Your task to perform on an android device: Search for Mexican restaurants on Maps Image 0: 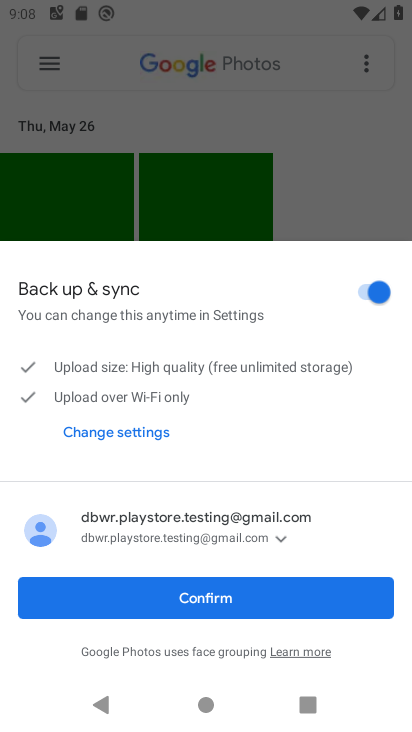
Step 0: click (149, 595)
Your task to perform on an android device: Search for Mexican restaurants on Maps Image 1: 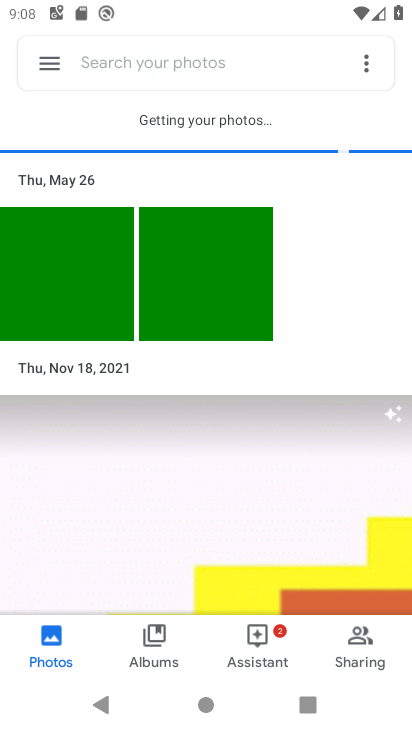
Step 1: press home button
Your task to perform on an android device: Search for Mexican restaurants on Maps Image 2: 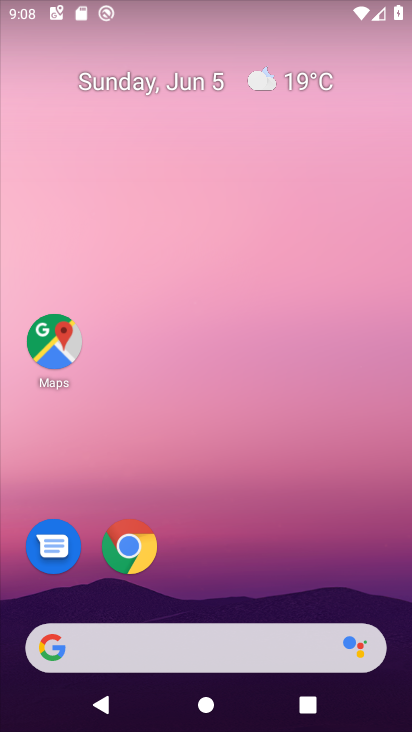
Step 2: click (61, 338)
Your task to perform on an android device: Search for Mexican restaurants on Maps Image 3: 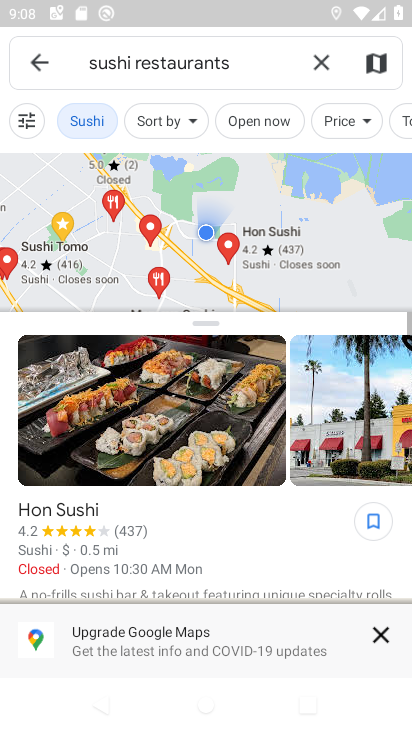
Step 3: click (317, 52)
Your task to perform on an android device: Search for Mexican restaurants on Maps Image 4: 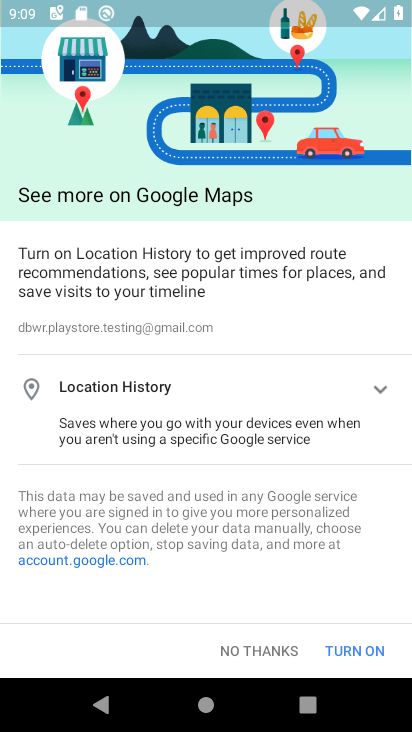
Step 4: click (238, 636)
Your task to perform on an android device: Search for Mexican restaurants on Maps Image 5: 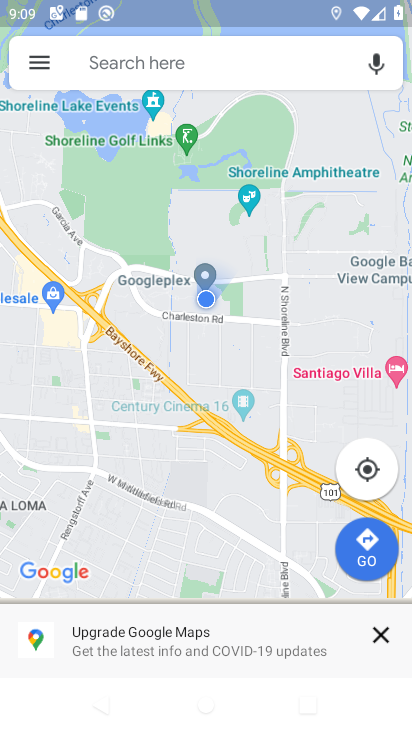
Step 5: click (131, 65)
Your task to perform on an android device: Search for Mexican restaurants on Maps Image 6: 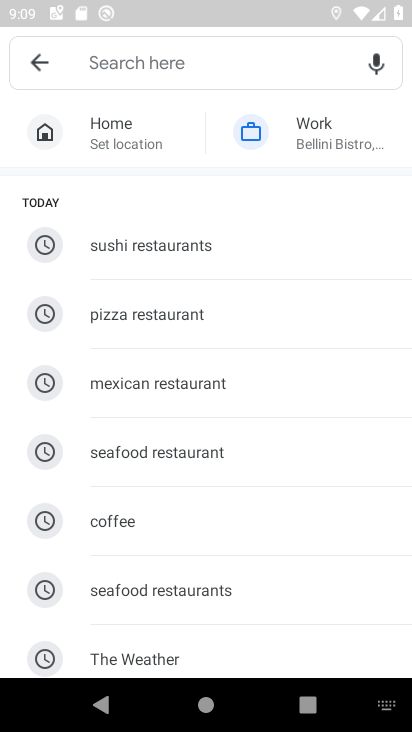
Step 6: type " Mexican restaurants"
Your task to perform on an android device: Search for Mexican restaurants on Maps Image 7: 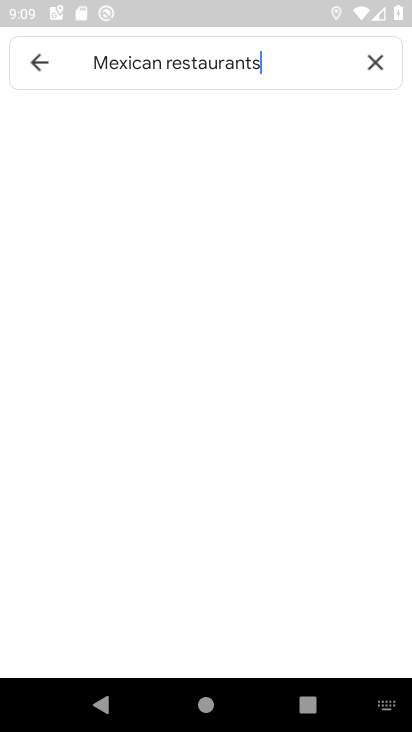
Step 7: type ""
Your task to perform on an android device: Search for Mexican restaurants on Maps Image 8: 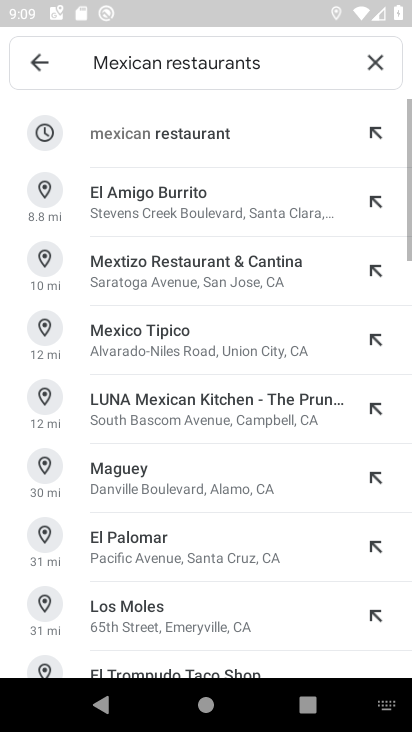
Step 8: click (166, 137)
Your task to perform on an android device: Search for Mexican restaurants on Maps Image 9: 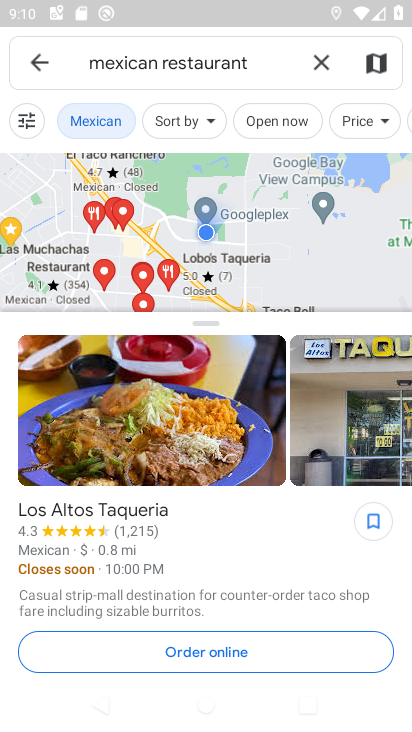
Step 9: task complete